Your task to perform on an android device: Open Google Maps and go to "Timeline" Image 0: 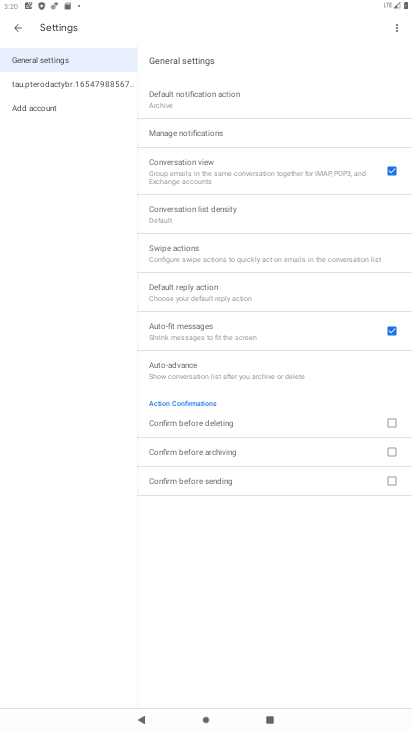
Step 0: press home button
Your task to perform on an android device: Open Google Maps and go to "Timeline" Image 1: 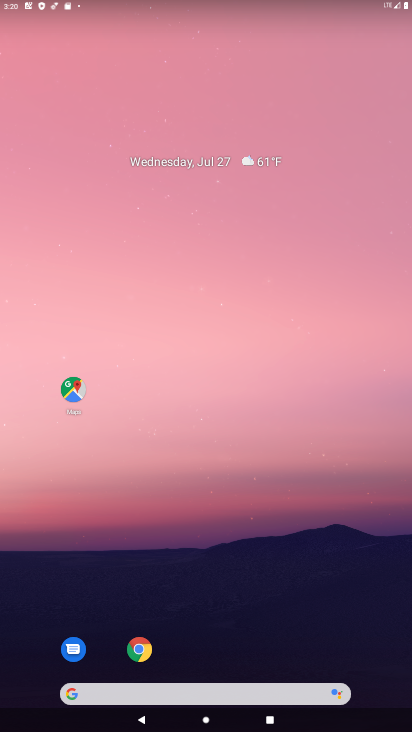
Step 1: drag from (175, 482) to (179, 233)
Your task to perform on an android device: Open Google Maps and go to "Timeline" Image 2: 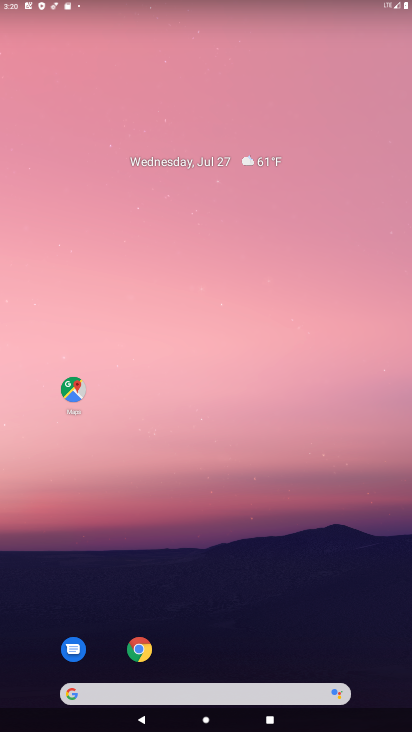
Step 2: click (68, 393)
Your task to perform on an android device: Open Google Maps and go to "Timeline" Image 3: 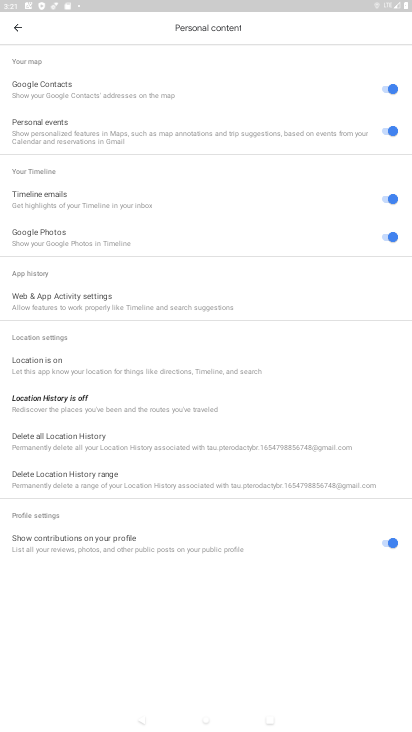
Step 3: click (19, 32)
Your task to perform on an android device: Open Google Maps and go to "Timeline" Image 4: 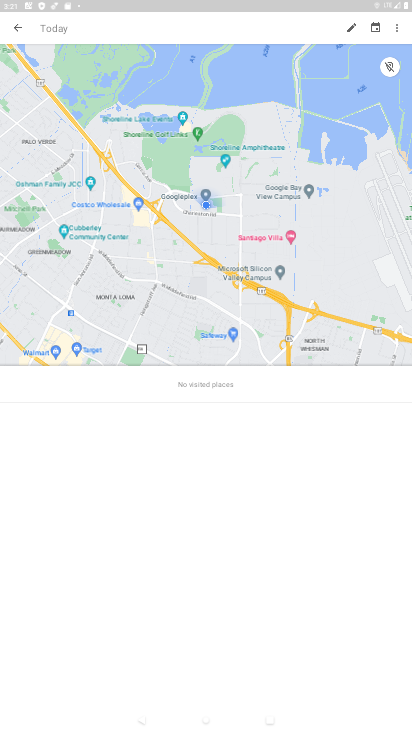
Step 4: click (20, 29)
Your task to perform on an android device: Open Google Maps and go to "Timeline" Image 5: 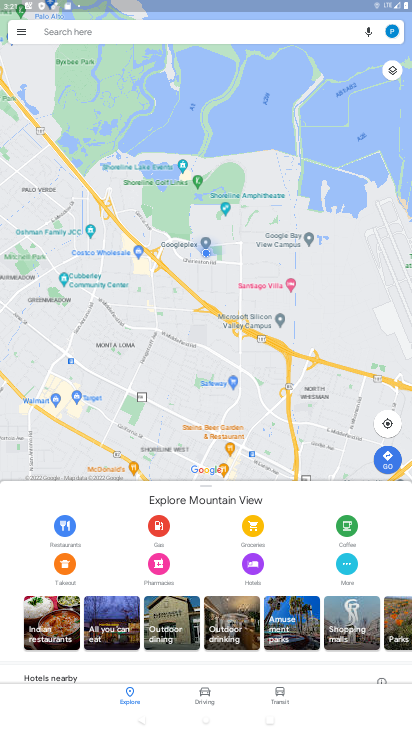
Step 5: click (20, 29)
Your task to perform on an android device: Open Google Maps and go to "Timeline" Image 6: 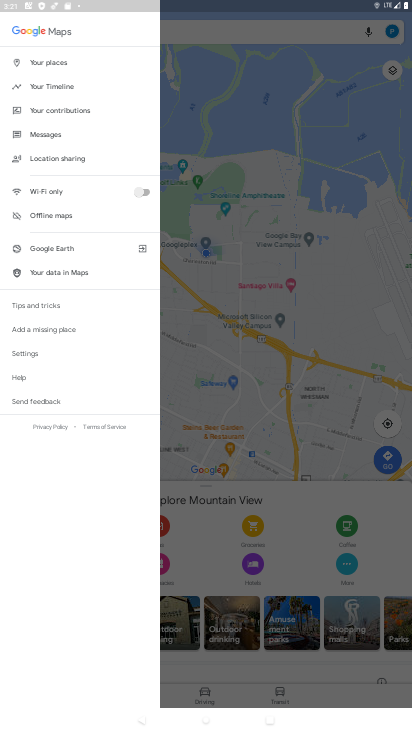
Step 6: click (47, 85)
Your task to perform on an android device: Open Google Maps and go to "Timeline" Image 7: 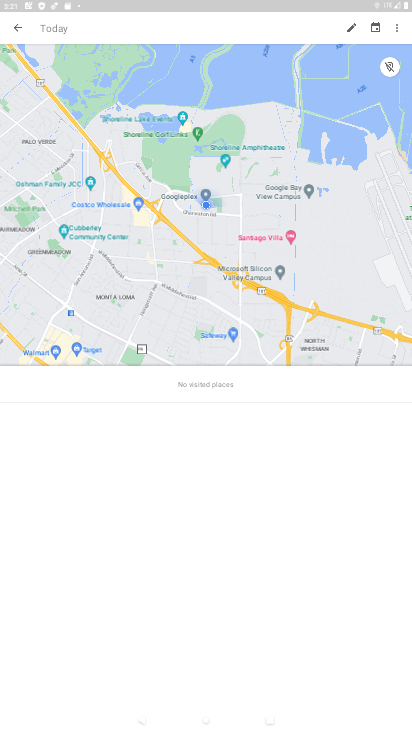
Step 7: task complete